Your task to perform on an android device: clear history in the chrome app Image 0: 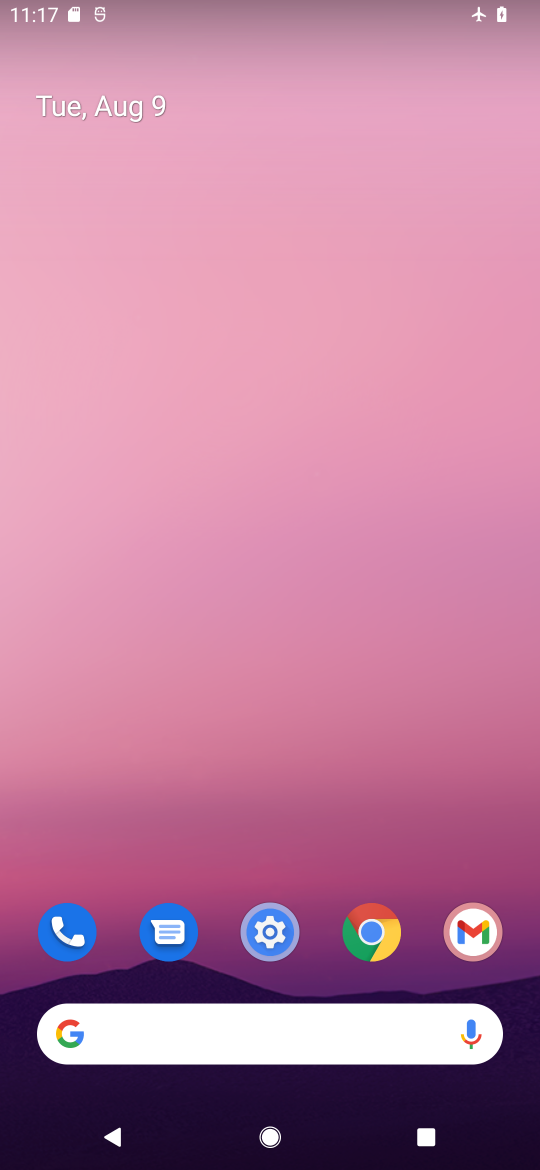
Step 0: click (370, 938)
Your task to perform on an android device: clear history in the chrome app Image 1: 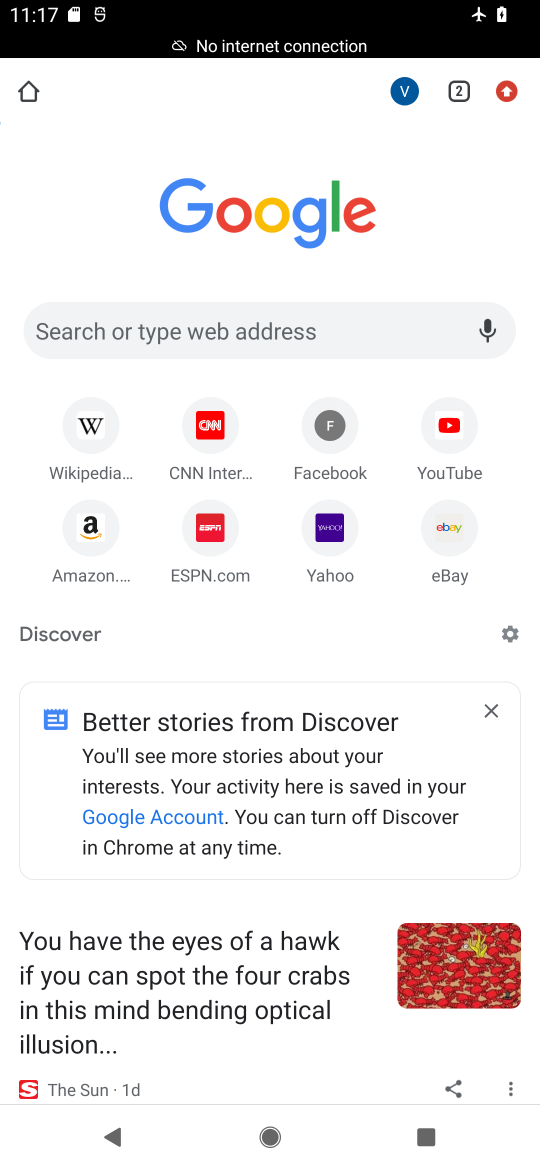
Step 1: click (507, 94)
Your task to perform on an android device: clear history in the chrome app Image 2: 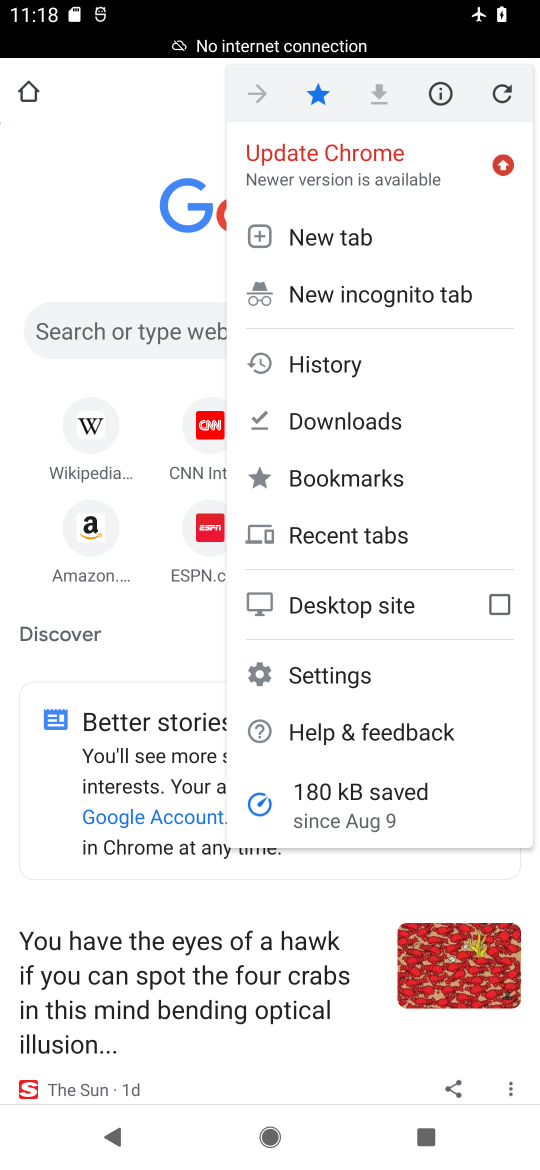
Step 2: click (325, 373)
Your task to perform on an android device: clear history in the chrome app Image 3: 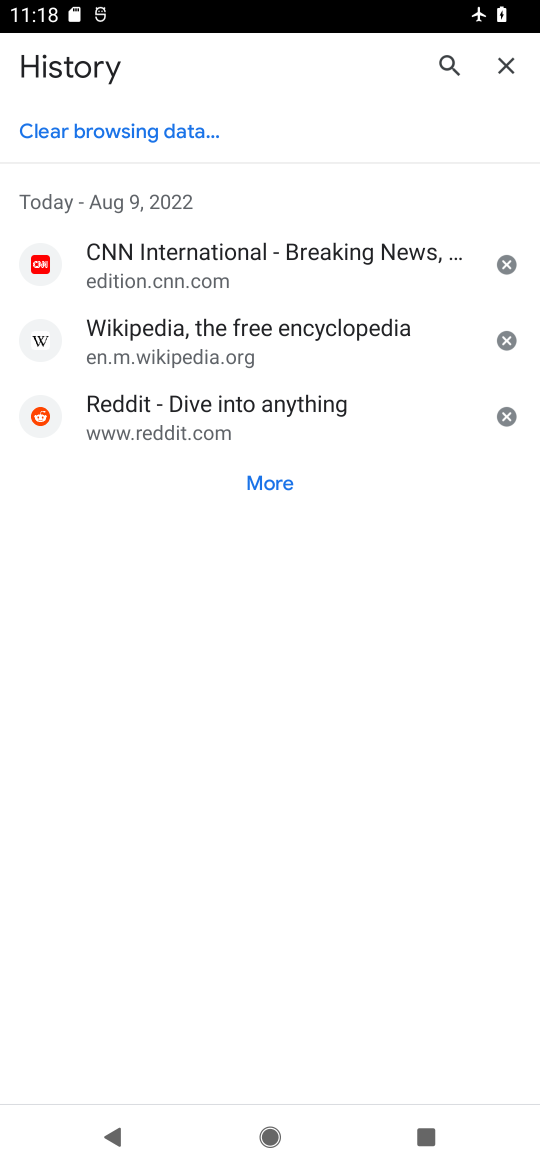
Step 3: click (108, 129)
Your task to perform on an android device: clear history in the chrome app Image 4: 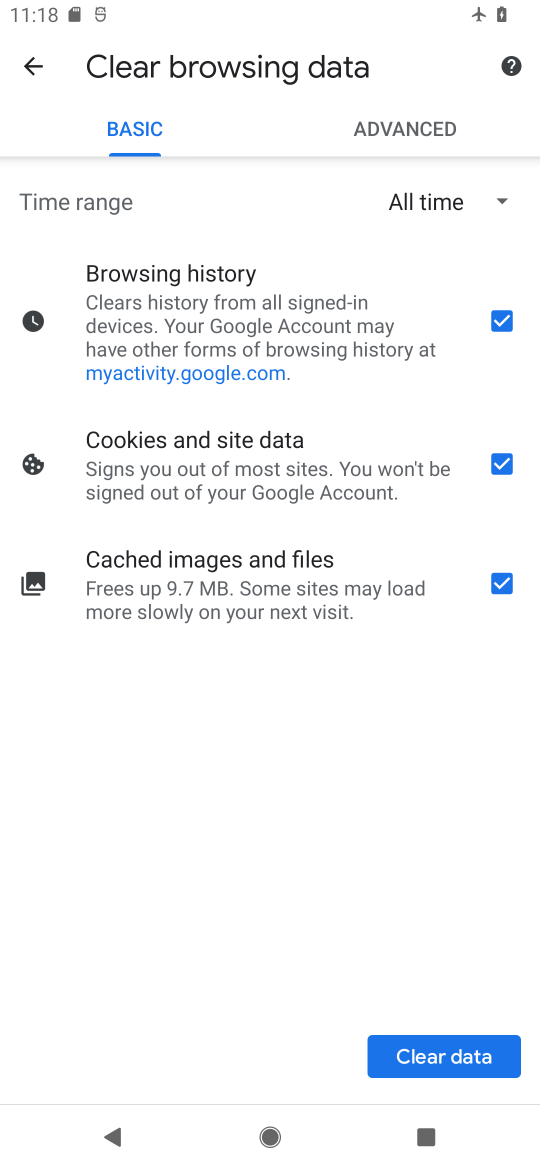
Step 4: click (468, 1063)
Your task to perform on an android device: clear history in the chrome app Image 5: 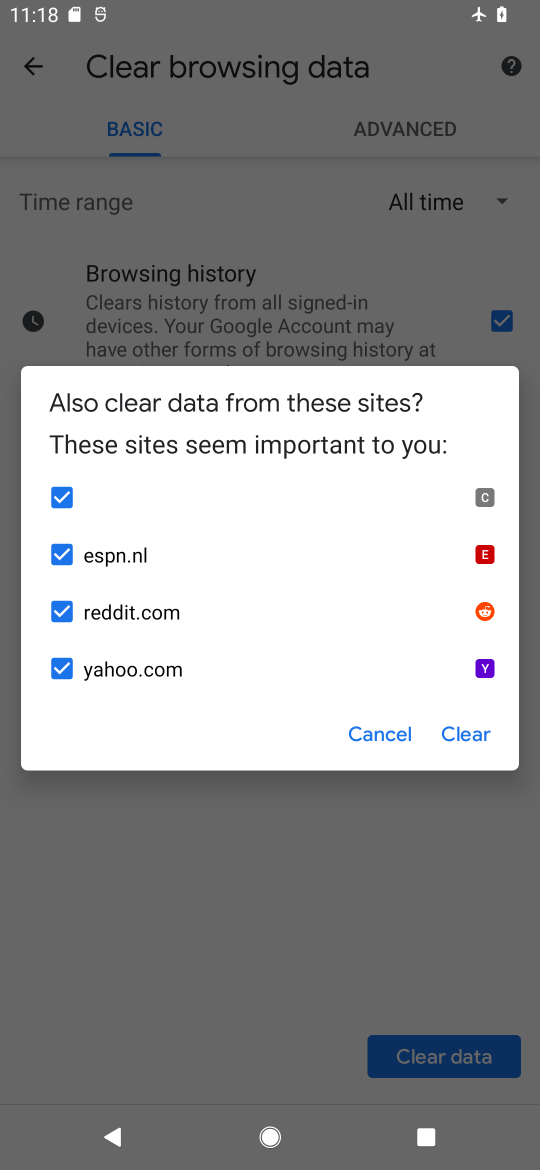
Step 5: click (468, 728)
Your task to perform on an android device: clear history in the chrome app Image 6: 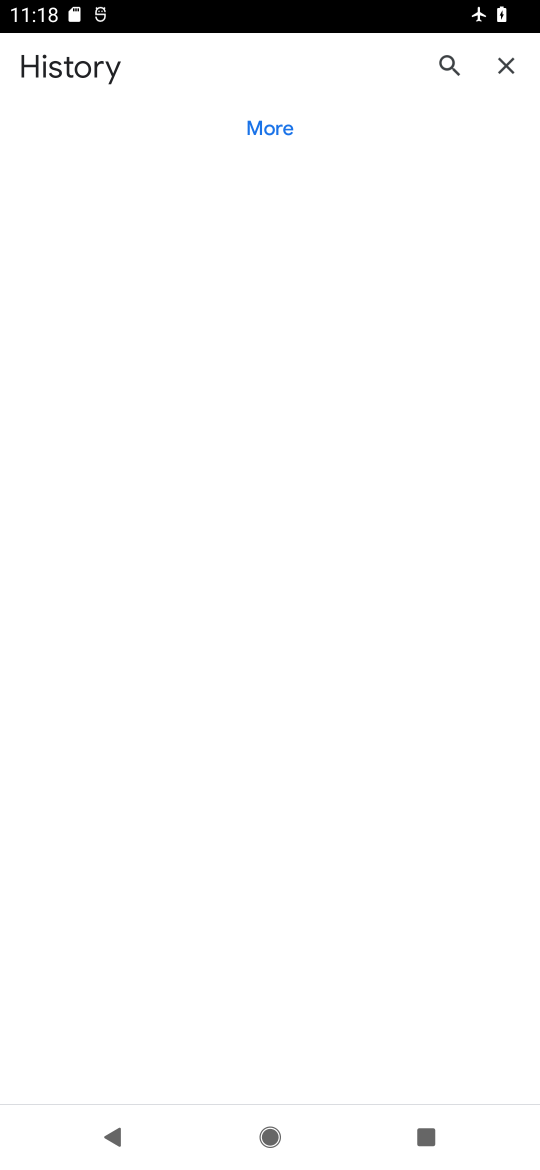
Step 6: task complete